Your task to perform on an android device: turn on wifi Image 0: 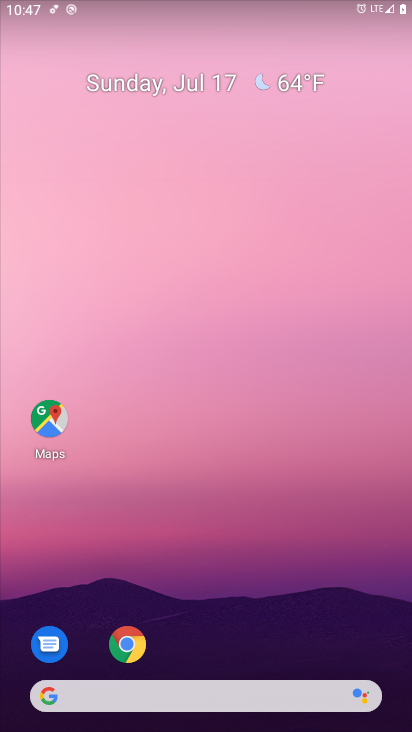
Step 0: press home button
Your task to perform on an android device: turn on wifi Image 1: 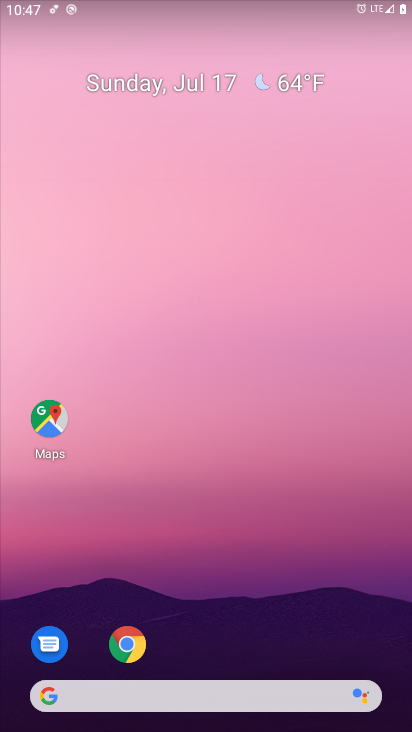
Step 1: drag from (226, 7) to (265, 324)
Your task to perform on an android device: turn on wifi Image 2: 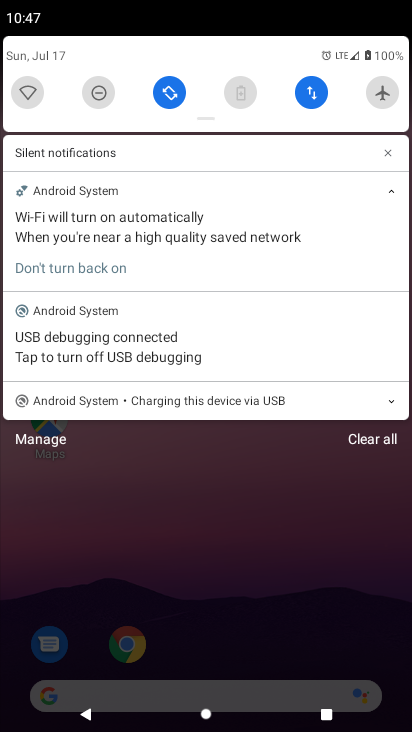
Step 2: click (30, 95)
Your task to perform on an android device: turn on wifi Image 3: 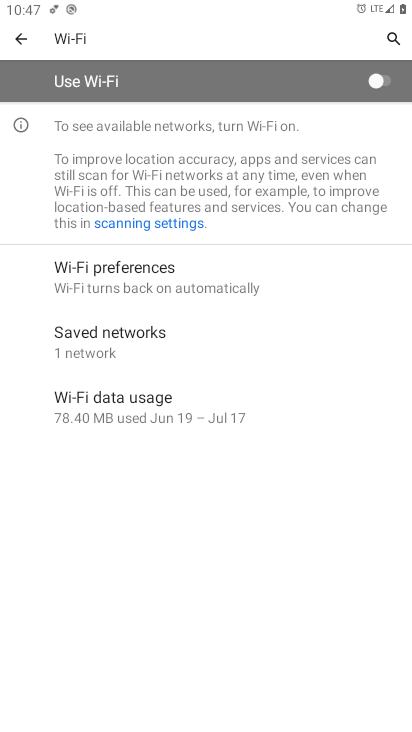
Step 3: click (381, 78)
Your task to perform on an android device: turn on wifi Image 4: 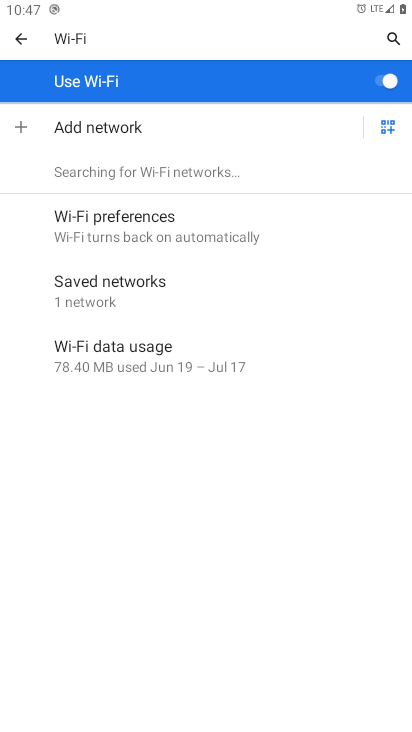
Step 4: task complete